Your task to perform on an android device: Open Reddit.com Image 0: 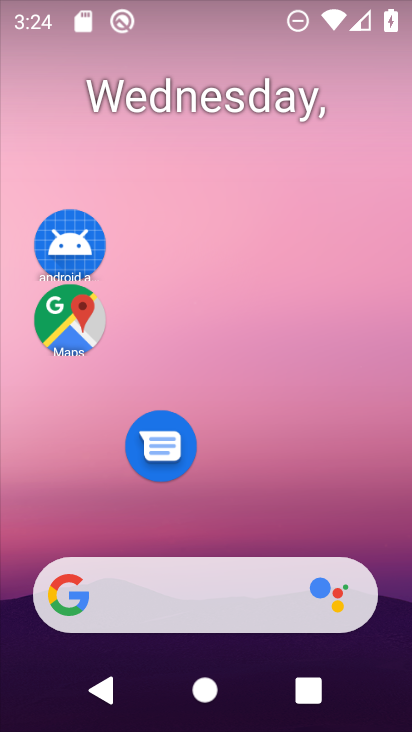
Step 0: drag from (283, 494) to (303, 186)
Your task to perform on an android device: Open Reddit.com Image 1: 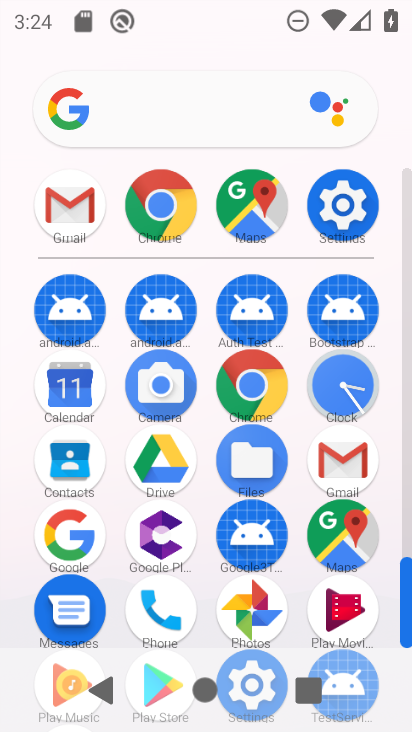
Step 1: click (165, 235)
Your task to perform on an android device: Open Reddit.com Image 2: 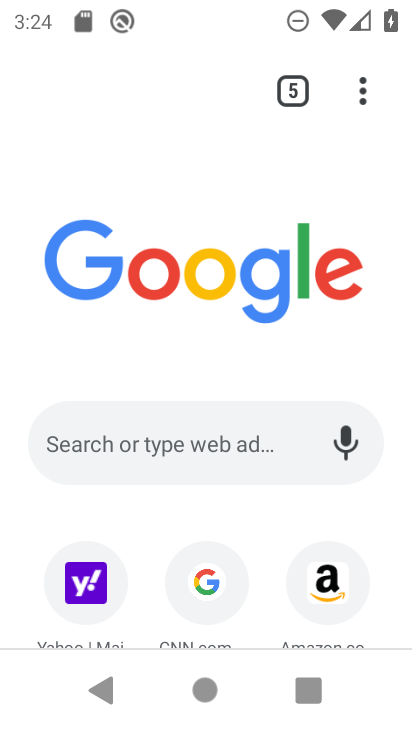
Step 2: click (190, 429)
Your task to perform on an android device: Open Reddit.com Image 3: 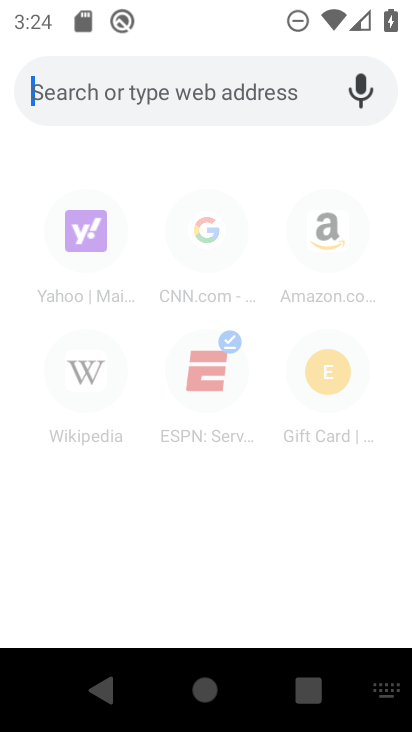
Step 3: type "reddit"
Your task to perform on an android device: Open Reddit.com Image 4: 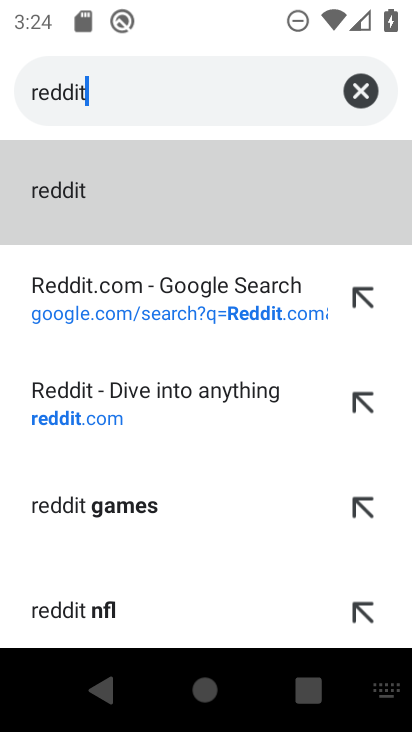
Step 4: click (205, 284)
Your task to perform on an android device: Open Reddit.com Image 5: 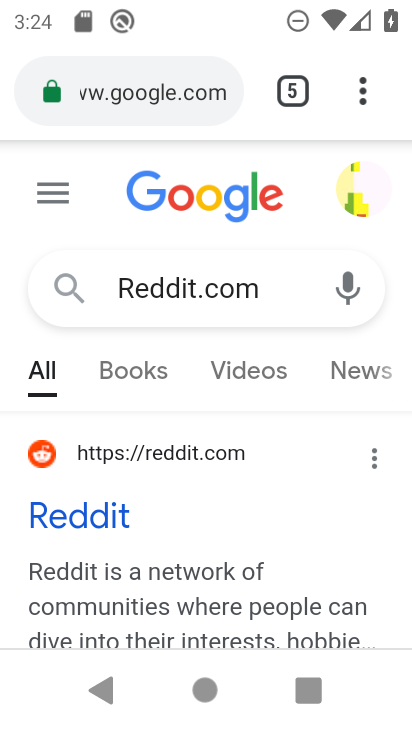
Step 5: task complete